Your task to perform on an android device: all mails in gmail Image 0: 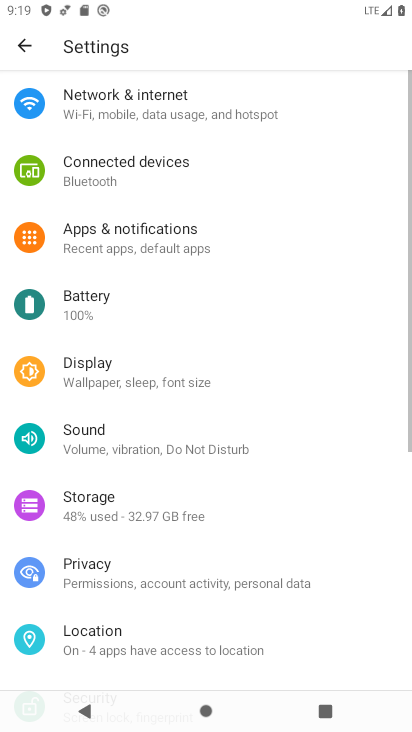
Step 0: press home button
Your task to perform on an android device: all mails in gmail Image 1: 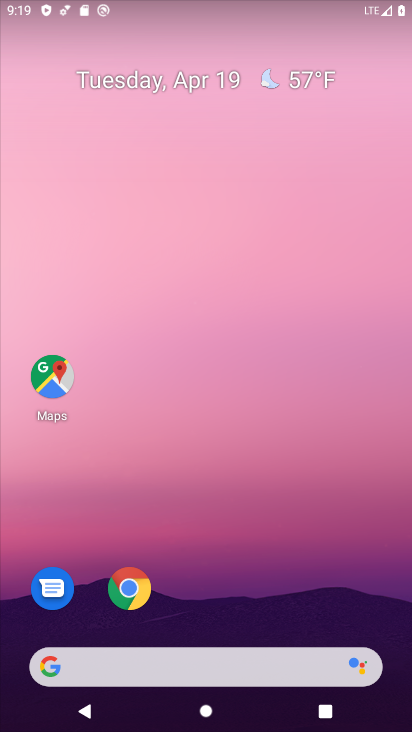
Step 1: drag from (241, 561) to (333, 168)
Your task to perform on an android device: all mails in gmail Image 2: 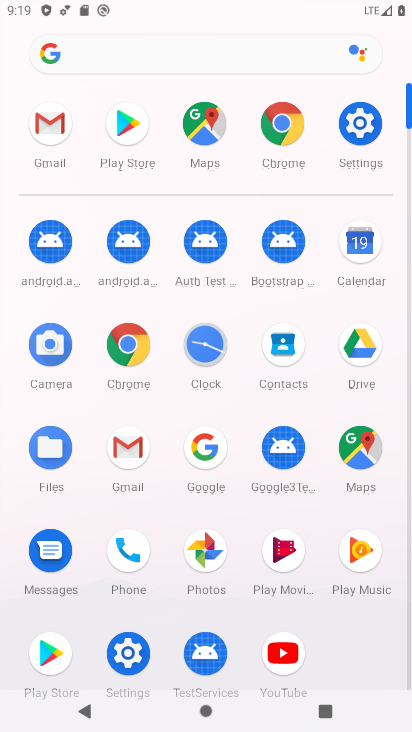
Step 2: click (134, 438)
Your task to perform on an android device: all mails in gmail Image 3: 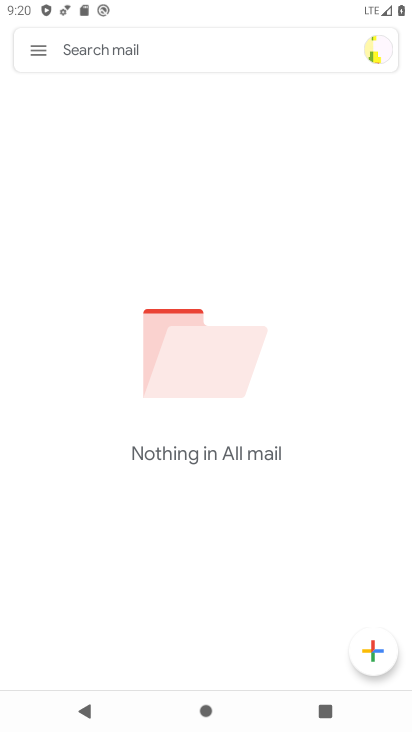
Step 3: click (41, 48)
Your task to perform on an android device: all mails in gmail Image 4: 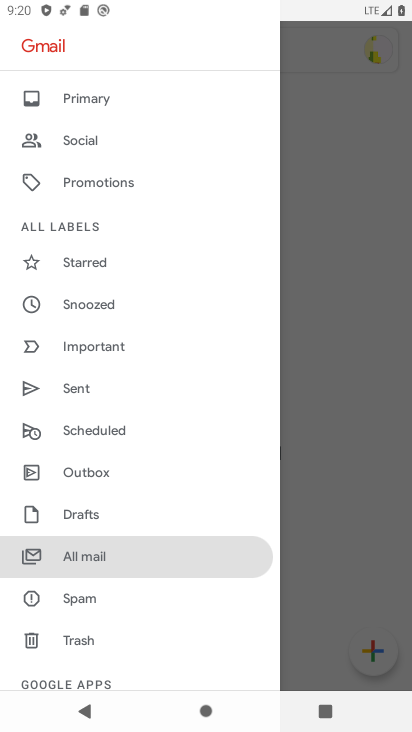
Step 4: click (122, 558)
Your task to perform on an android device: all mails in gmail Image 5: 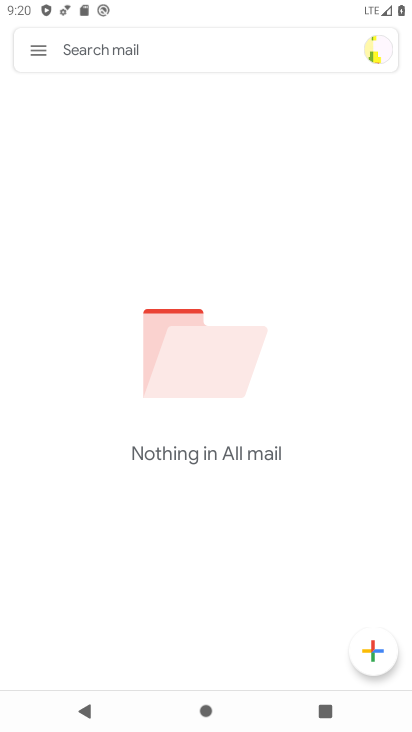
Step 5: task complete